Your task to perform on an android device: Play the latest video from the Washington Post Image 0: 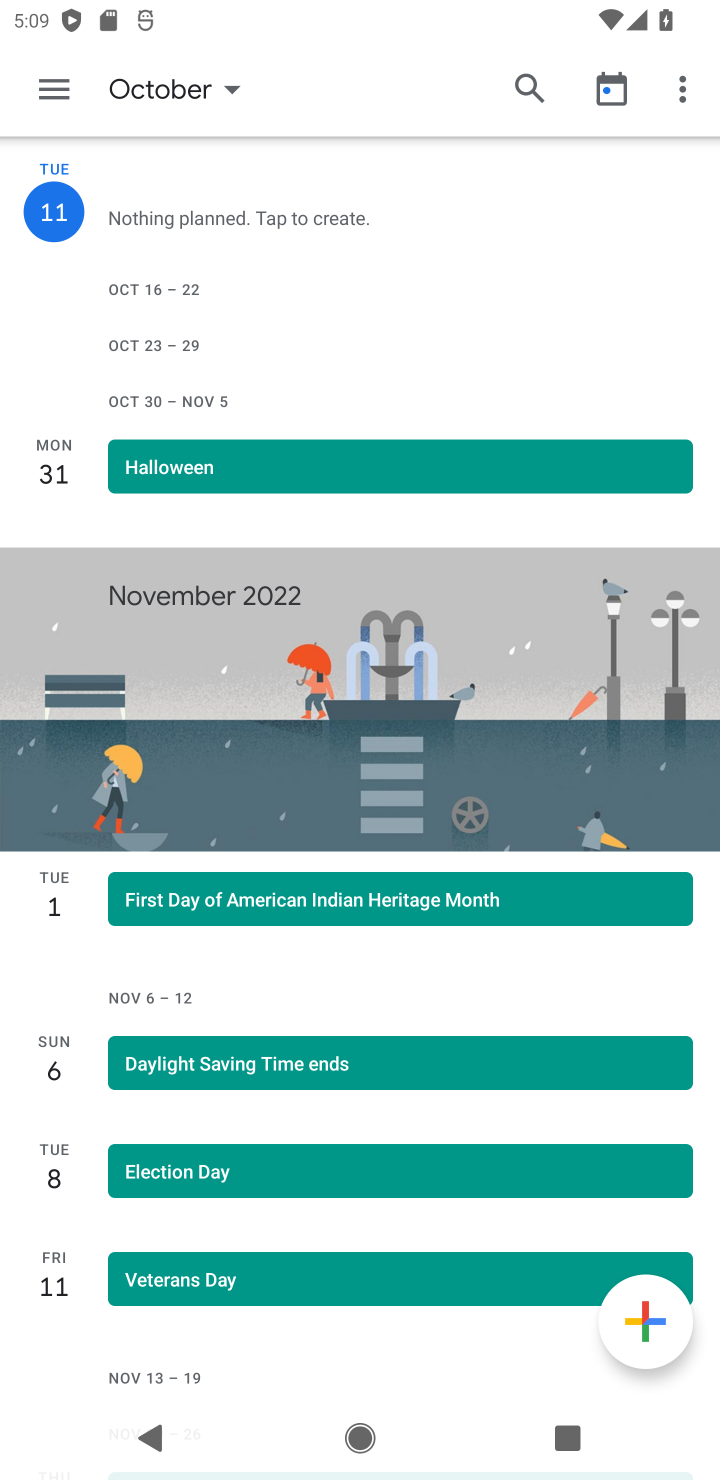
Step 0: press home button
Your task to perform on an android device: Play the latest video from the Washington Post Image 1: 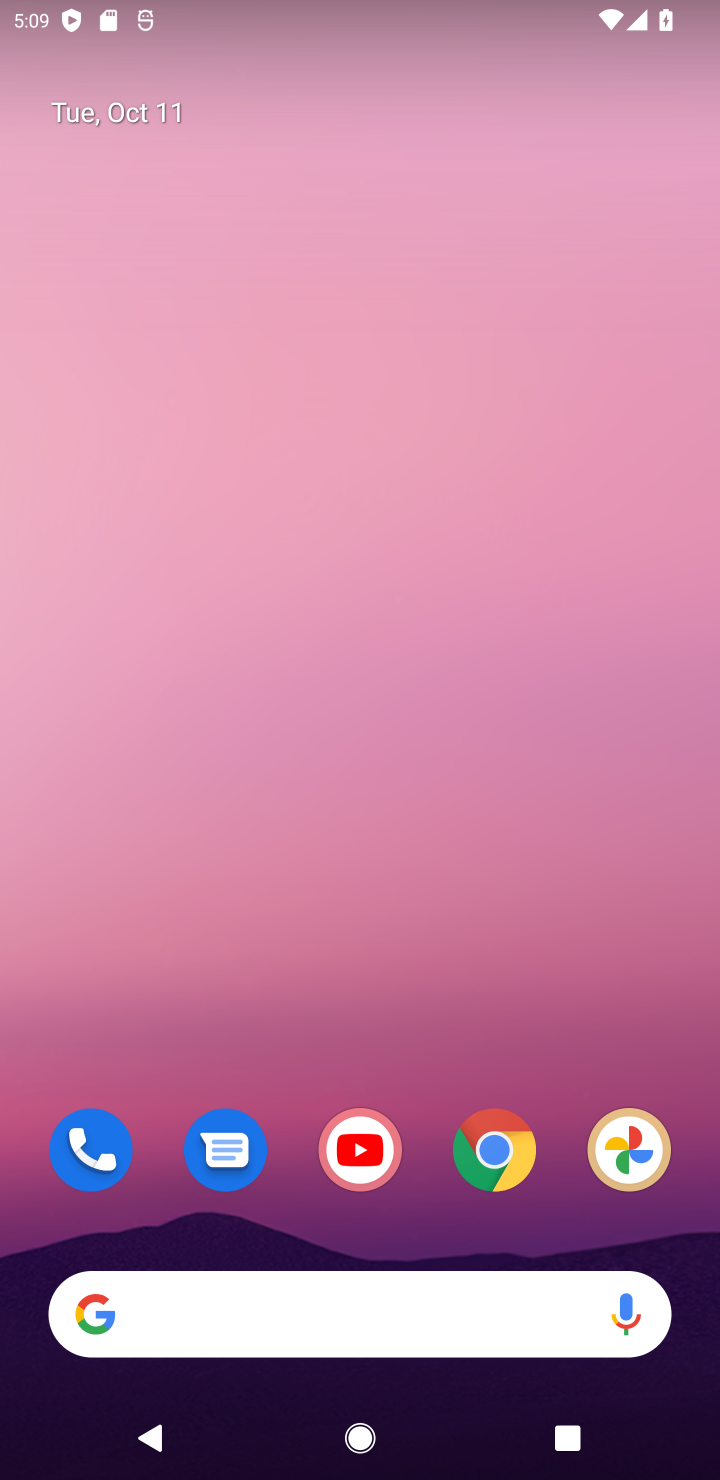
Step 1: click (485, 1163)
Your task to perform on an android device: Play the latest video from the Washington Post Image 2: 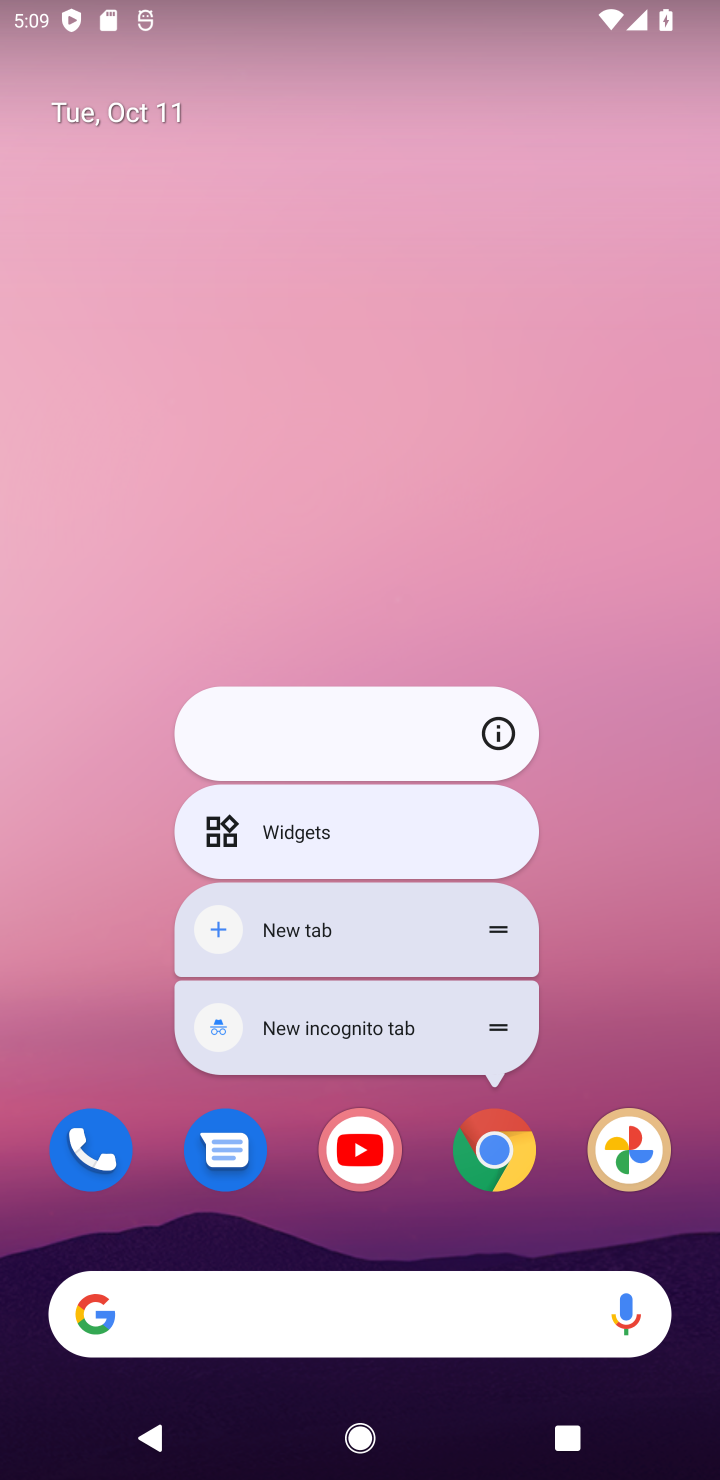
Step 2: click (501, 1158)
Your task to perform on an android device: Play the latest video from the Washington Post Image 3: 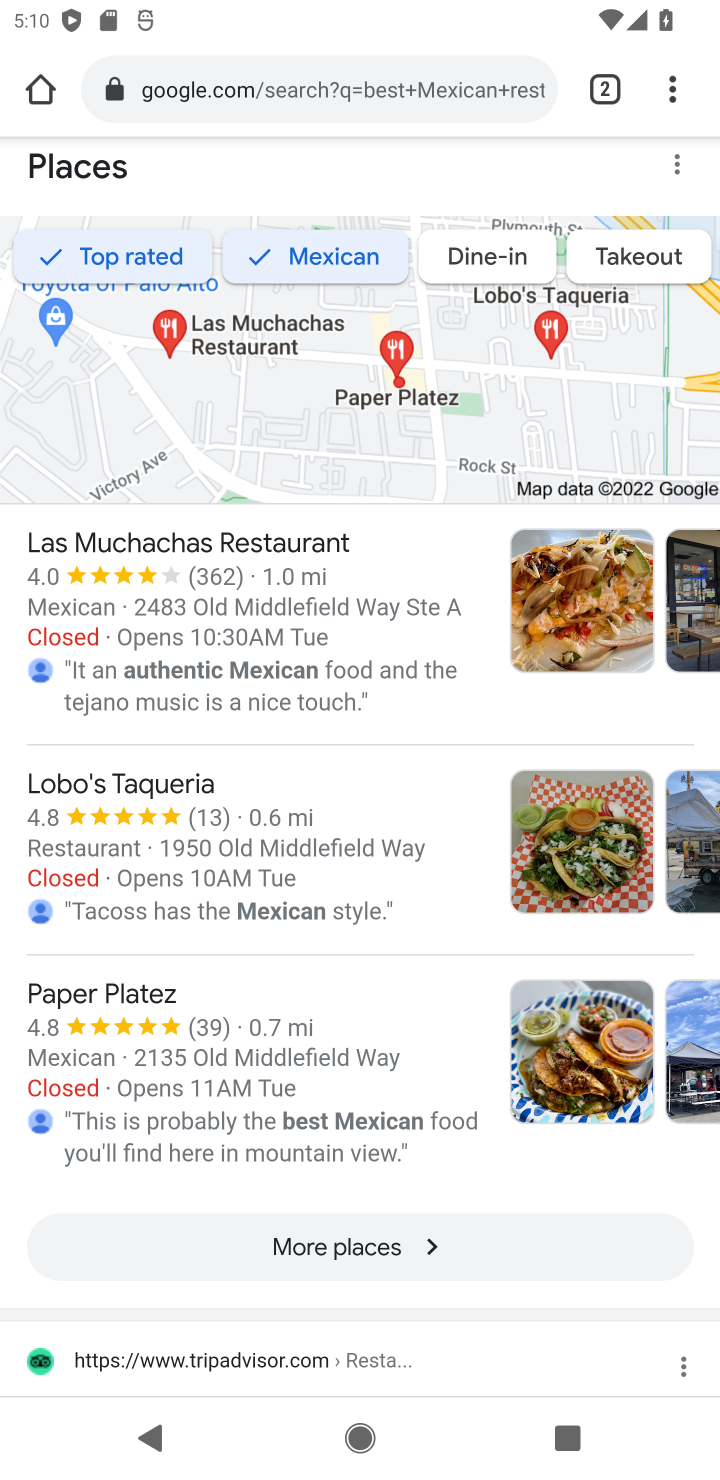
Step 3: click (225, 84)
Your task to perform on an android device: Play the latest video from the Washington Post Image 4: 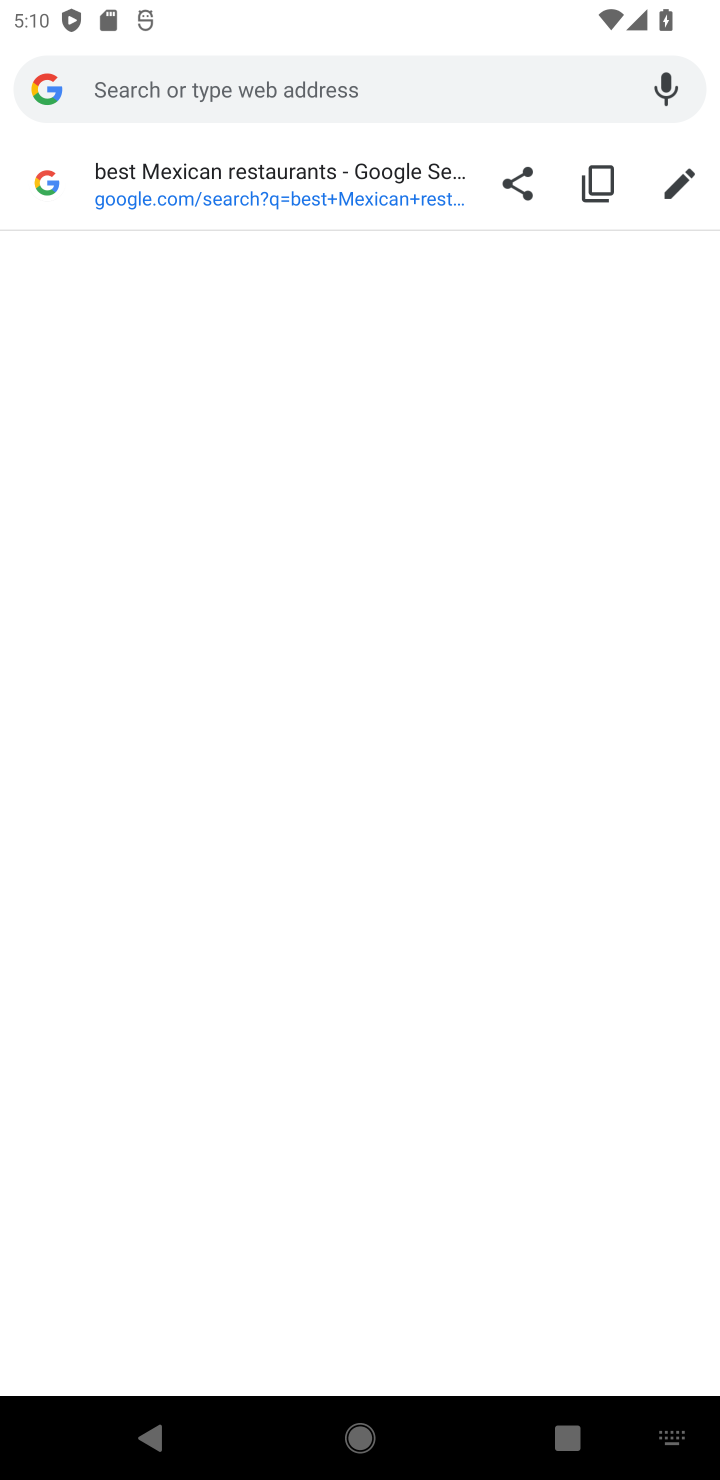
Step 4: type "Play the latest video from the Washington Post"
Your task to perform on an android device: Play the latest video from the Washington Post Image 5: 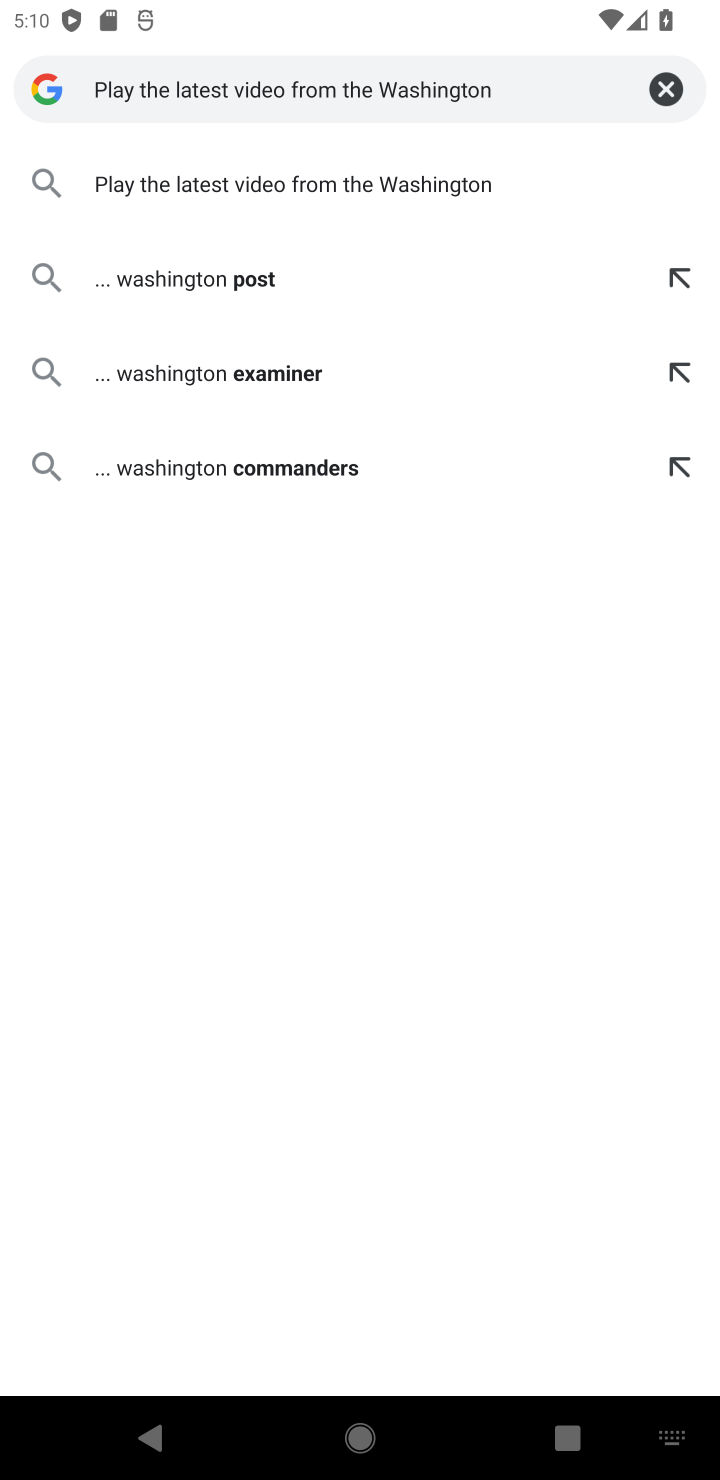
Step 5: click (239, 199)
Your task to perform on an android device: Play the latest video from the Washington Post Image 6: 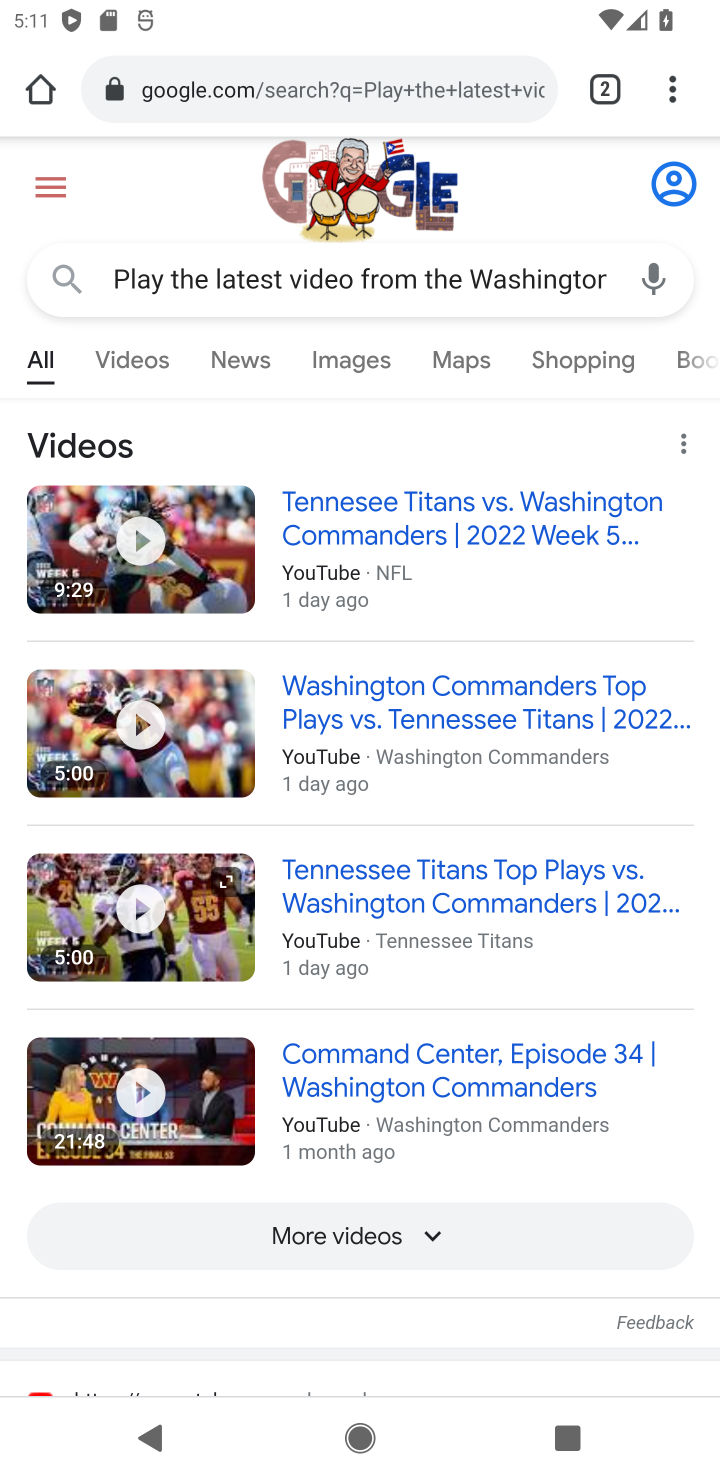
Step 6: click (259, 557)
Your task to perform on an android device: Play the latest video from the Washington Post Image 7: 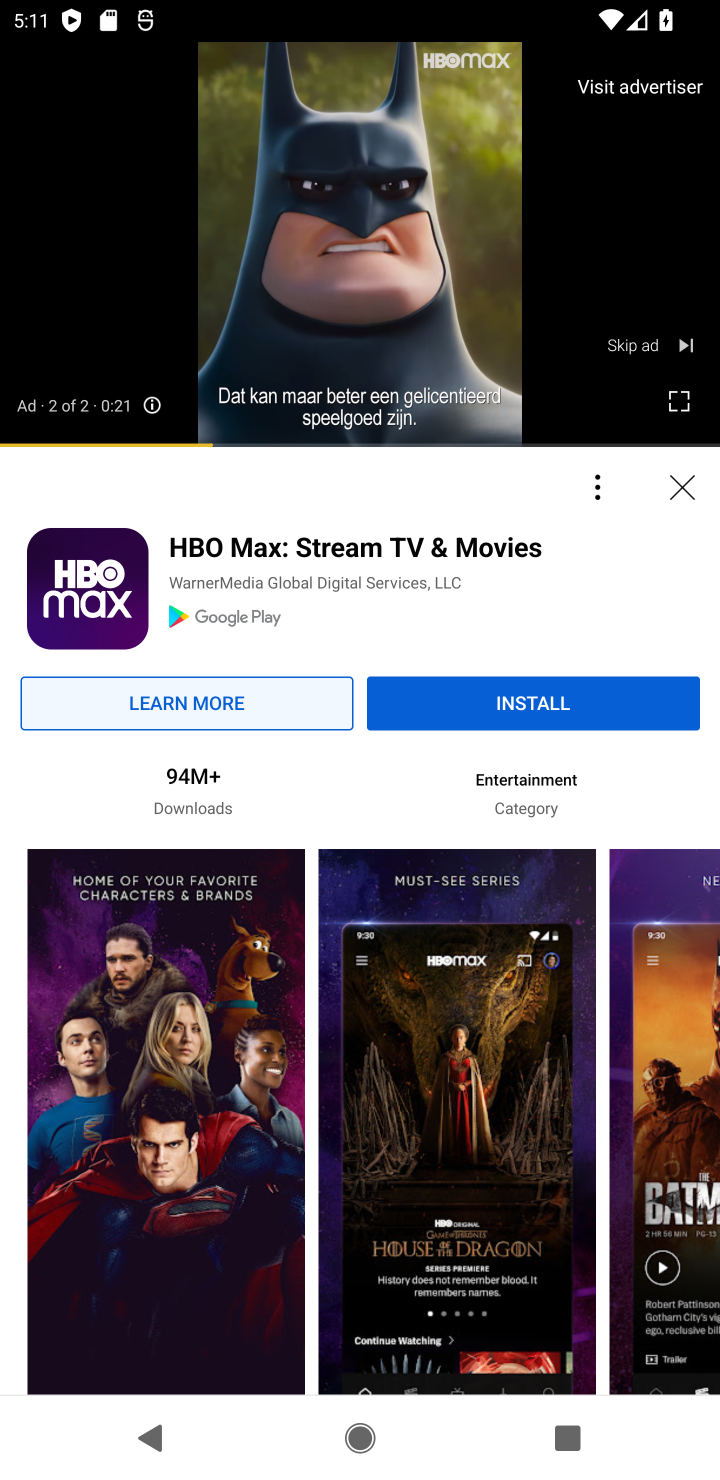
Step 7: click (597, 336)
Your task to perform on an android device: Play the latest video from the Washington Post Image 8: 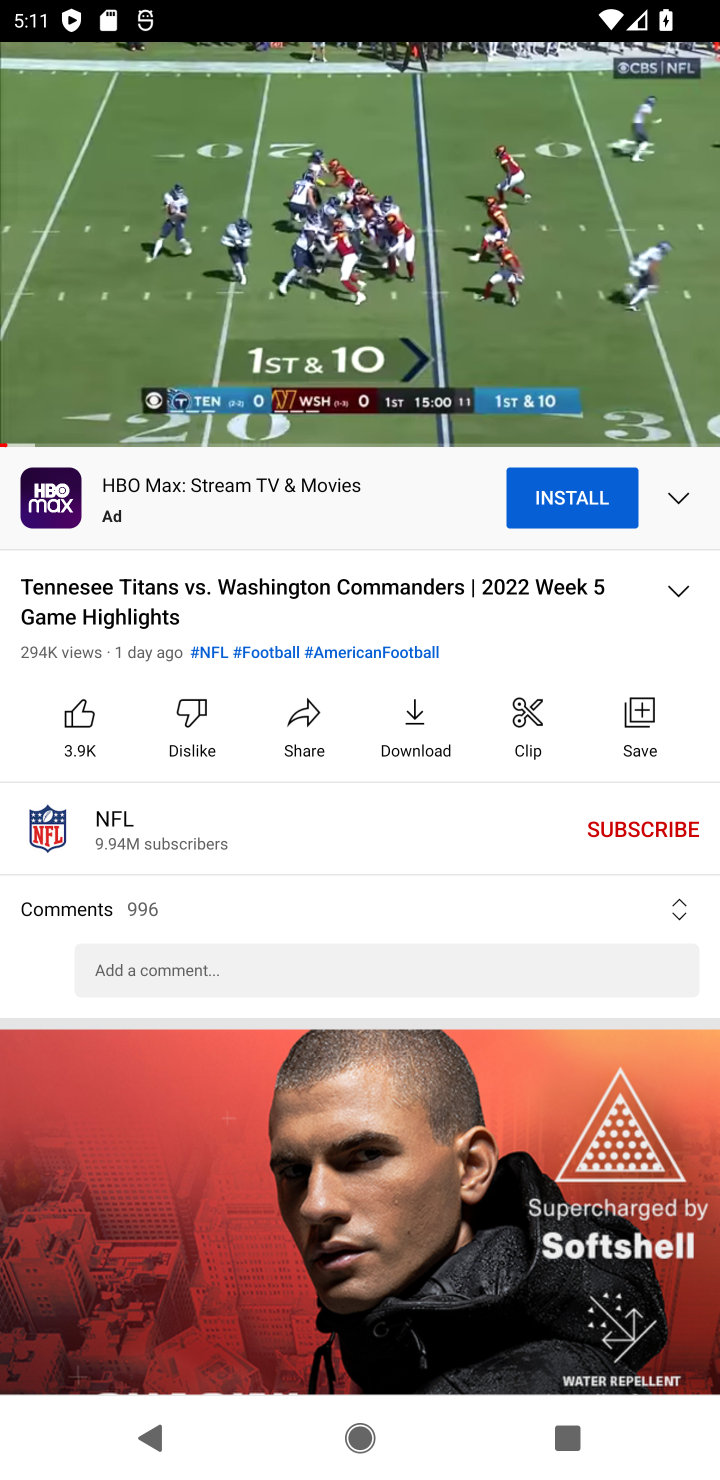
Step 8: click (309, 280)
Your task to perform on an android device: Play the latest video from the Washington Post Image 9: 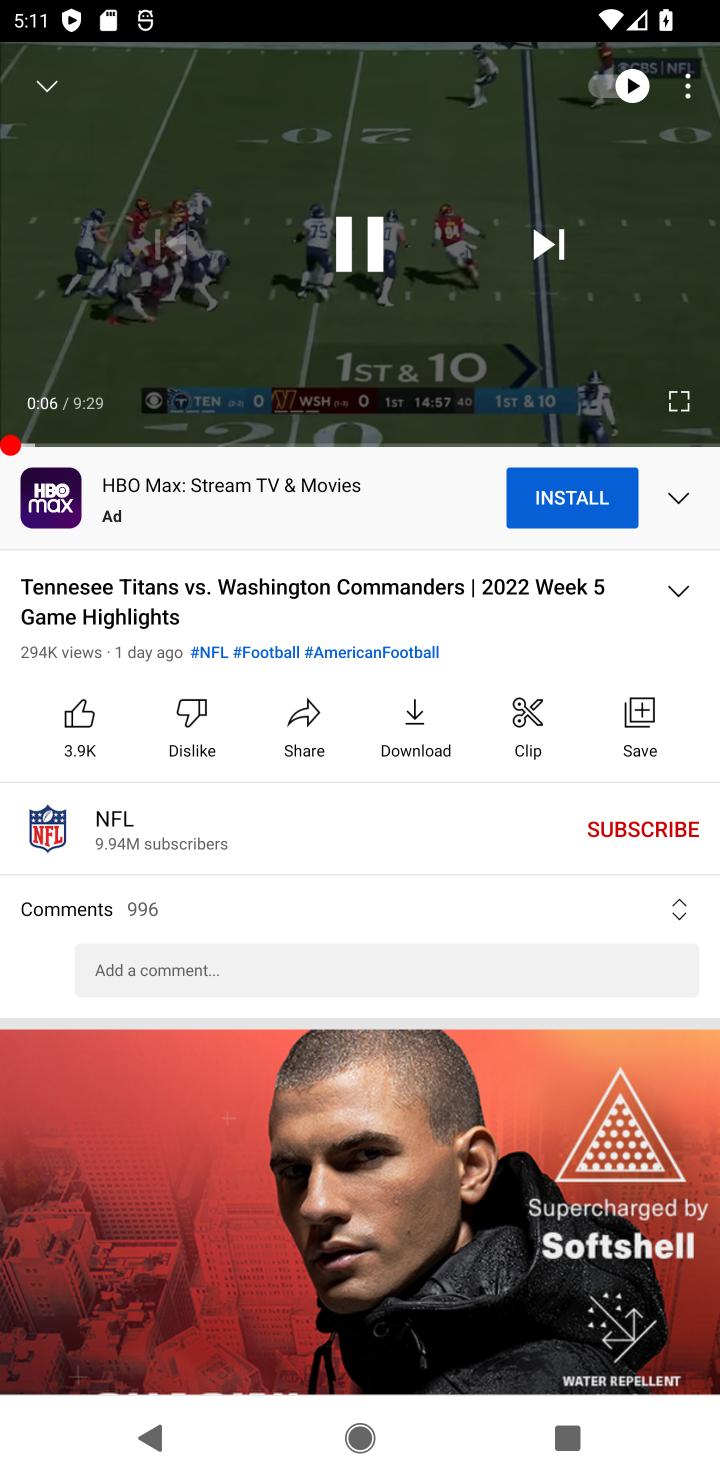
Step 9: click (344, 257)
Your task to perform on an android device: Play the latest video from the Washington Post Image 10: 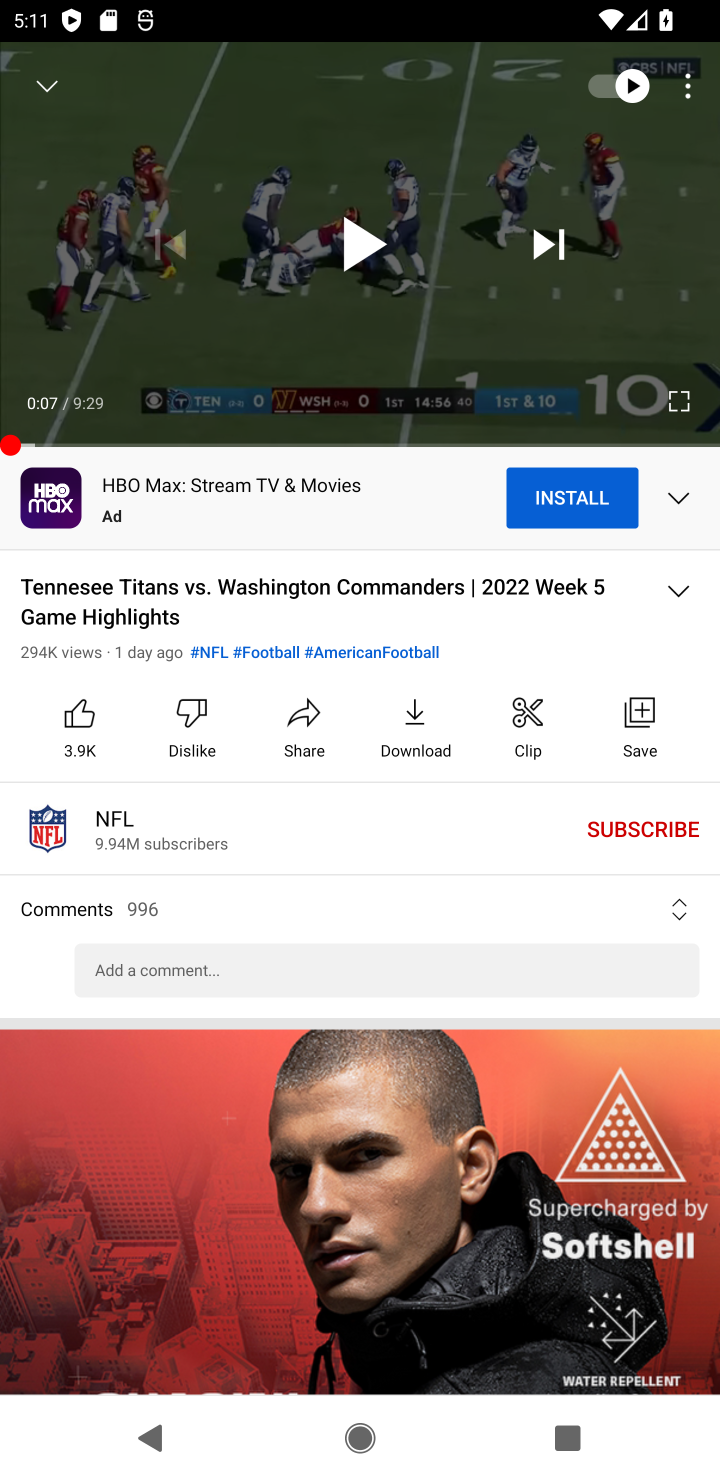
Step 10: task complete